Your task to perform on an android device: open app "PUBG MOBILE" Image 0: 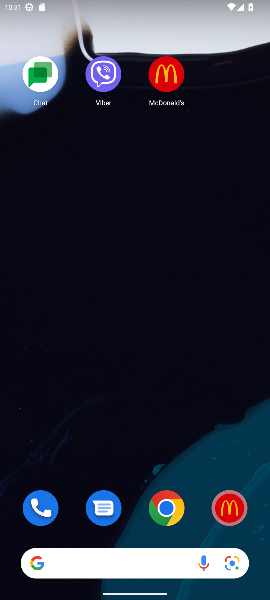
Step 0: drag from (119, 555) to (152, 71)
Your task to perform on an android device: open app "PUBG MOBILE" Image 1: 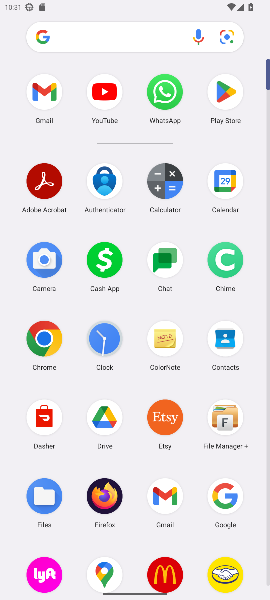
Step 1: click (227, 96)
Your task to perform on an android device: open app "PUBG MOBILE" Image 2: 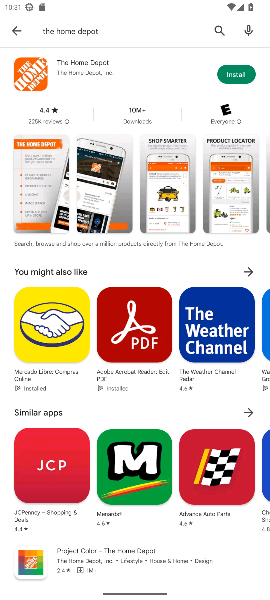
Step 2: click (216, 27)
Your task to perform on an android device: open app "PUBG MOBILE" Image 3: 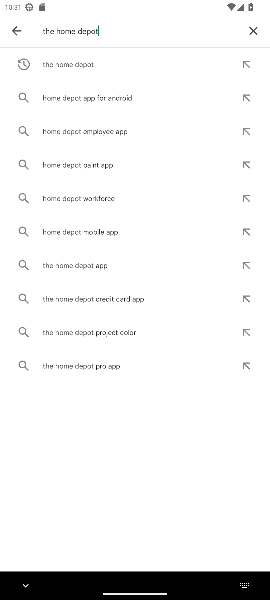
Step 3: click (255, 31)
Your task to perform on an android device: open app "PUBG MOBILE" Image 4: 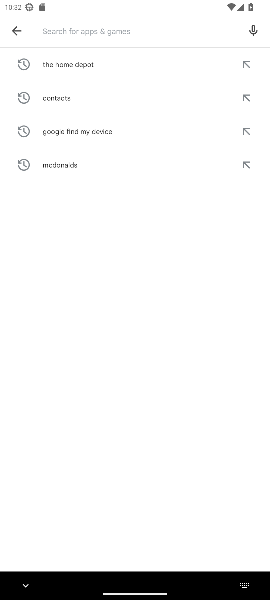
Step 4: type "pubg mobile"
Your task to perform on an android device: open app "PUBG MOBILE" Image 5: 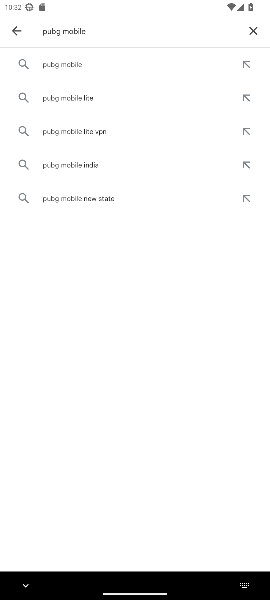
Step 5: click (101, 59)
Your task to perform on an android device: open app "PUBG MOBILE" Image 6: 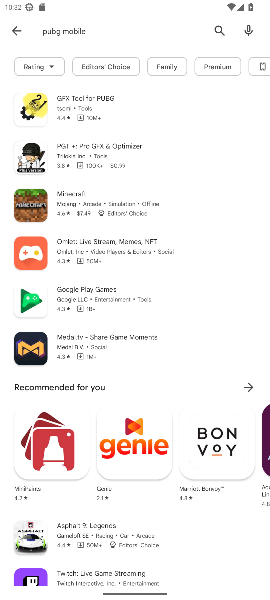
Step 6: task complete